Your task to perform on an android device: Open Wikipedia Image 0: 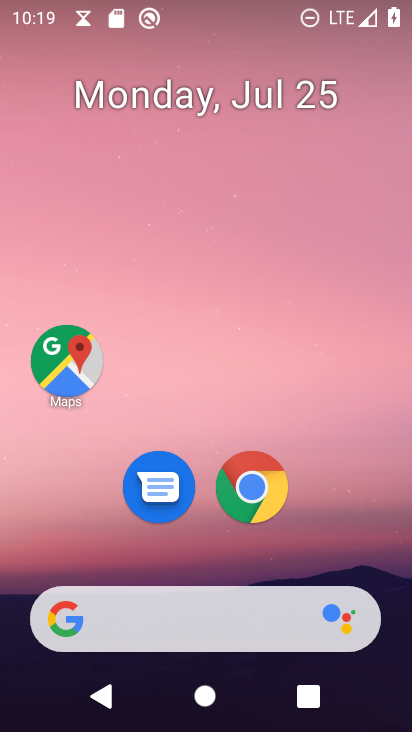
Step 0: click (271, 503)
Your task to perform on an android device: Open Wikipedia Image 1: 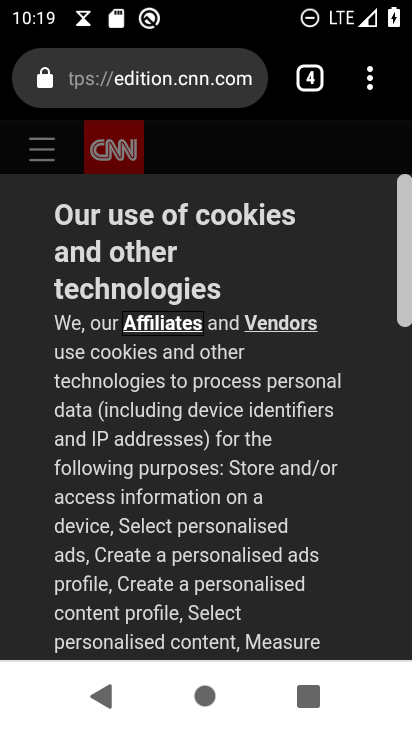
Step 1: click (308, 76)
Your task to perform on an android device: Open Wikipedia Image 2: 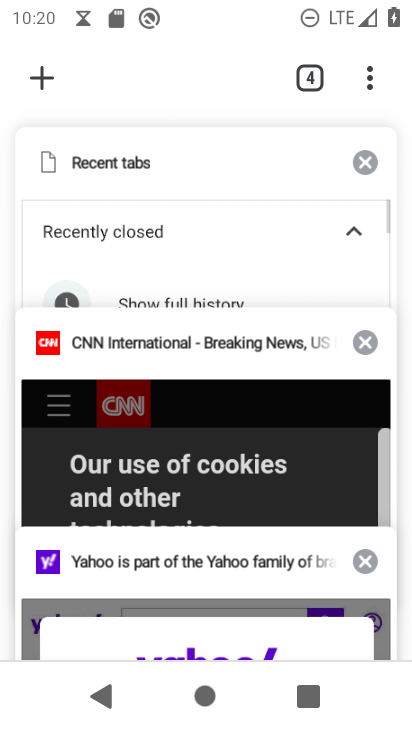
Step 2: click (31, 67)
Your task to perform on an android device: Open Wikipedia Image 3: 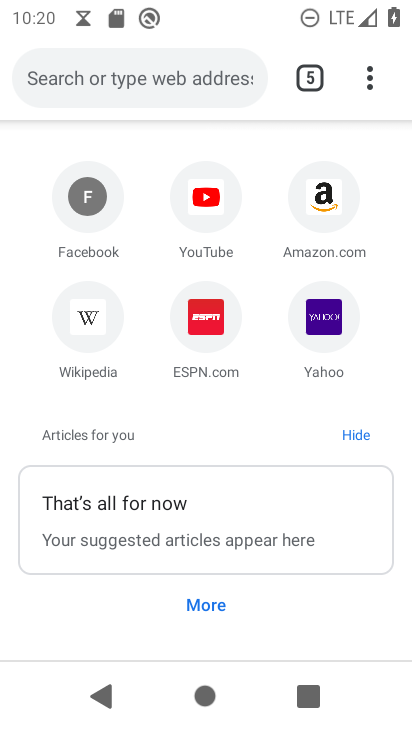
Step 3: click (79, 319)
Your task to perform on an android device: Open Wikipedia Image 4: 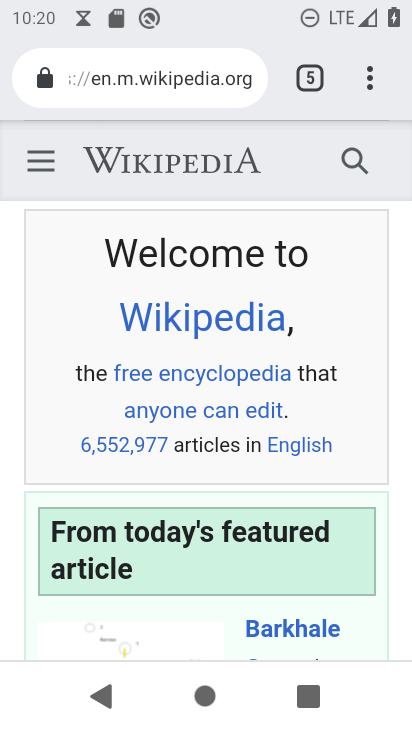
Step 4: task complete